Your task to perform on an android device: read, delete, or share a saved page in the chrome app Image 0: 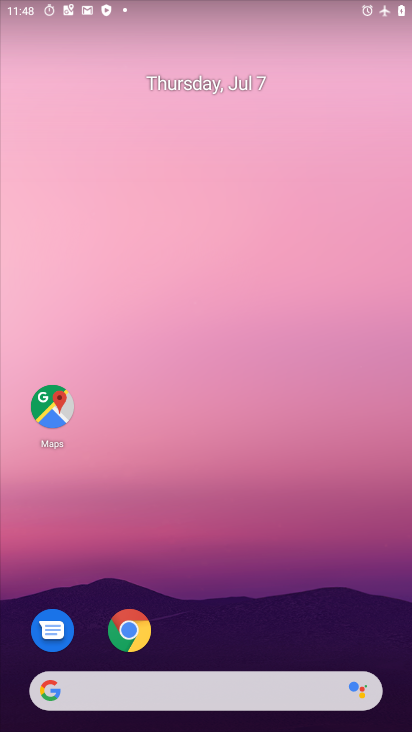
Step 0: drag from (221, 625) to (202, 209)
Your task to perform on an android device: read, delete, or share a saved page in the chrome app Image 1: 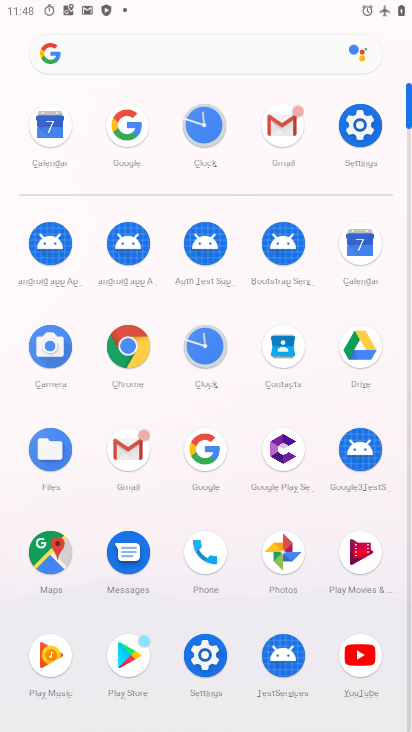
Step 1: click (135, 344)
Your task to perform on an android device: read, delete, or share a saved page in the chrome app Image 2: 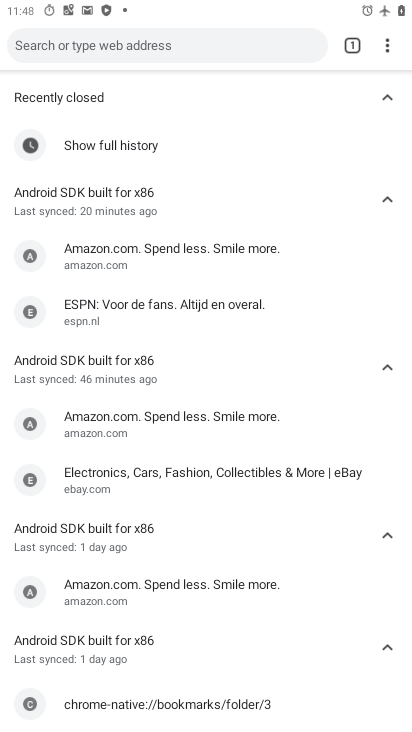
Step 2: click (384, 55)
Your task to perform on an android device: read, delete, or share a saved page in the chrome app Image 3: 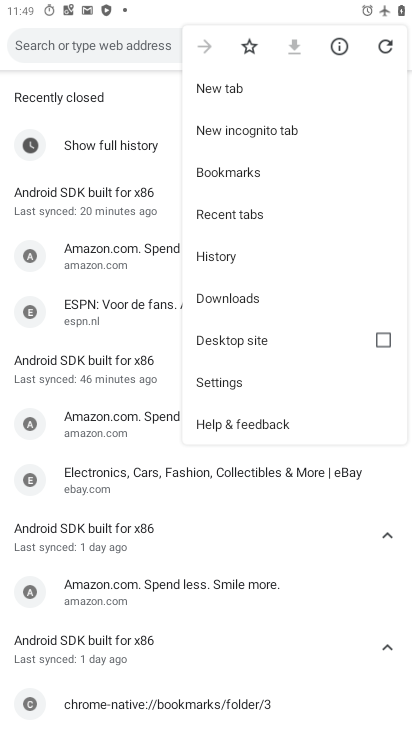
Step 3: click (244, 304)
Your task to perform on an android device: read, delete, or share a saved page in the chrome app Image 4: 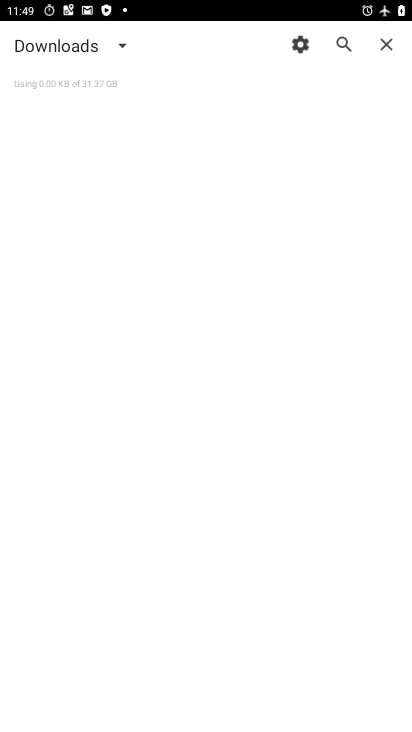
Step 4: click (108, 41)
Your task to perform on an android device: read, delete, or share a saved page in the chrome app Image 5: 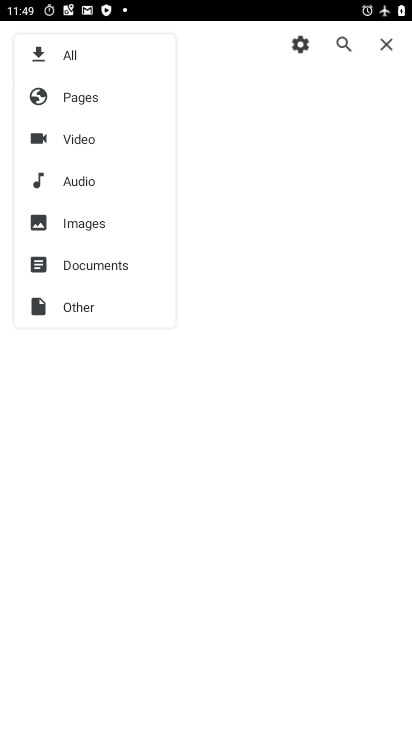
Step 5: click (69, 103)
Your task to perform on an android device: read, delete, or share a saved page in the chrome app Image 6: 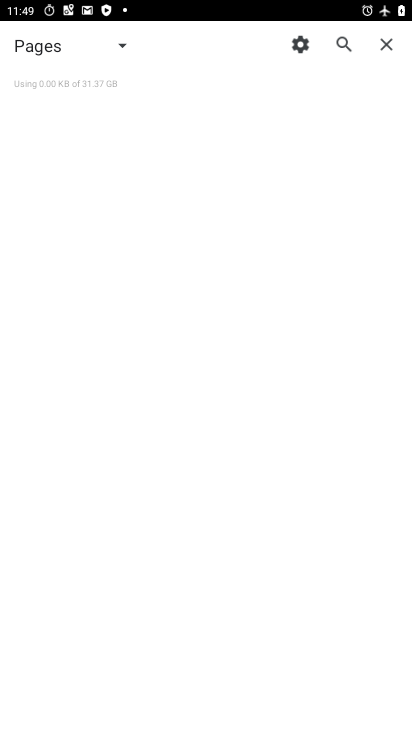
Step 6: task complete